Your task to perform on an android device: open app "Firefox Browser" Image 0: 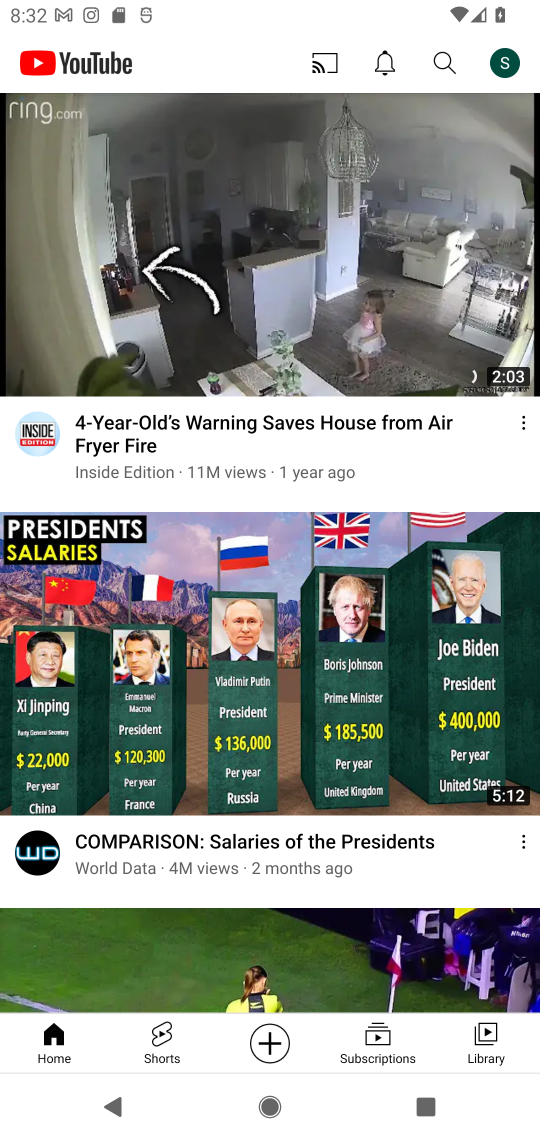
Step 0: press home button
Your task to perform on an android device: open app "Firefox Browser" Image 1: 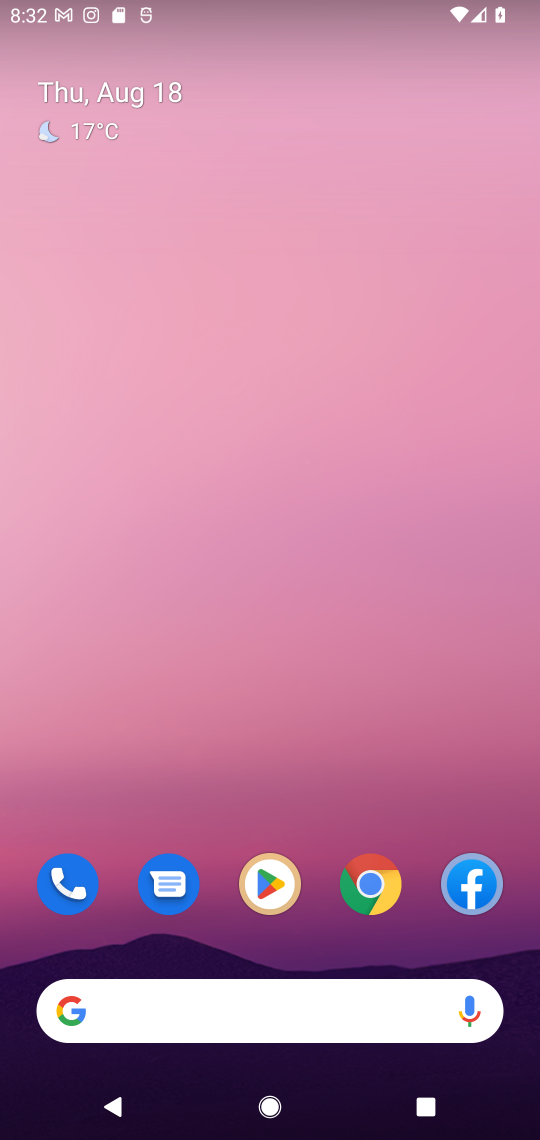
Step 1: drag from (196, 1017) to (218, 228)
Your task to perform on an android device: open app "Firefox Browser" Image 2: 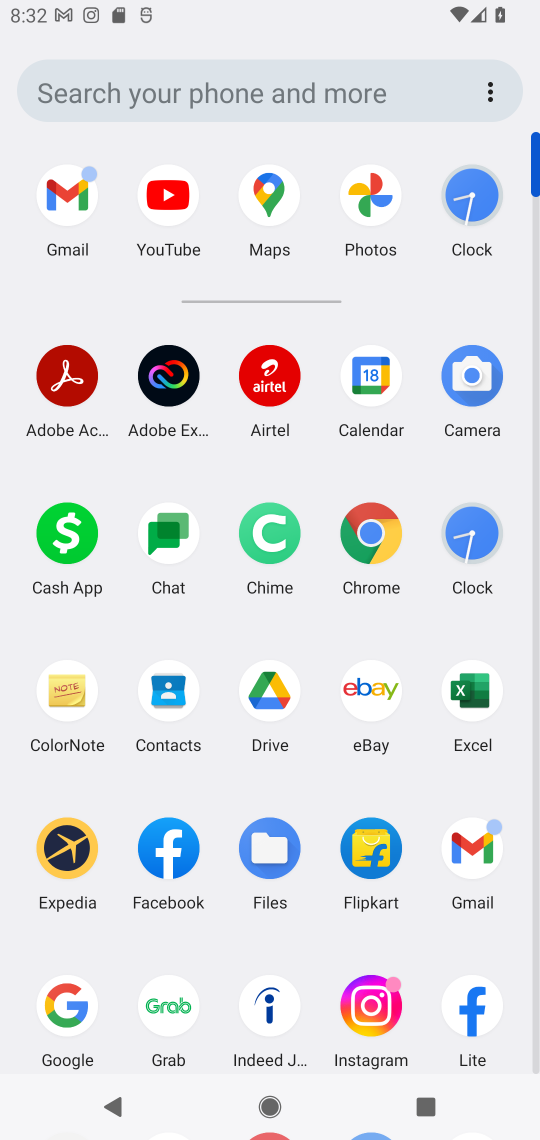
Step 2: drag from (217, 957) to (231, 366)
Your task to perform on an android device: open app "Firefox Browser" Image 3: 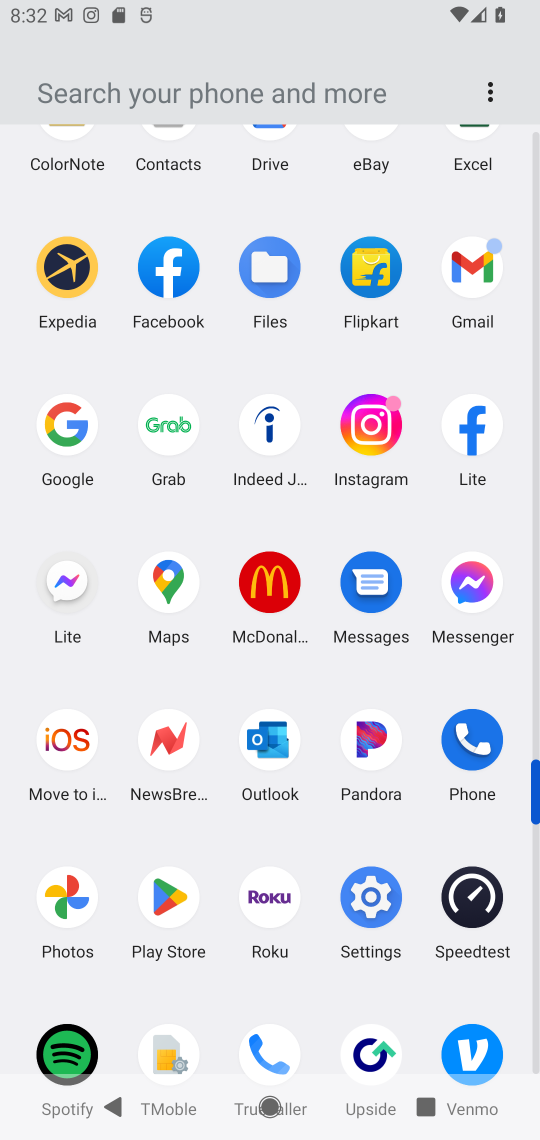
Step 3: click (168, 894)
Your task to perform on an android device: open app "Firefox Browser" Image 4: 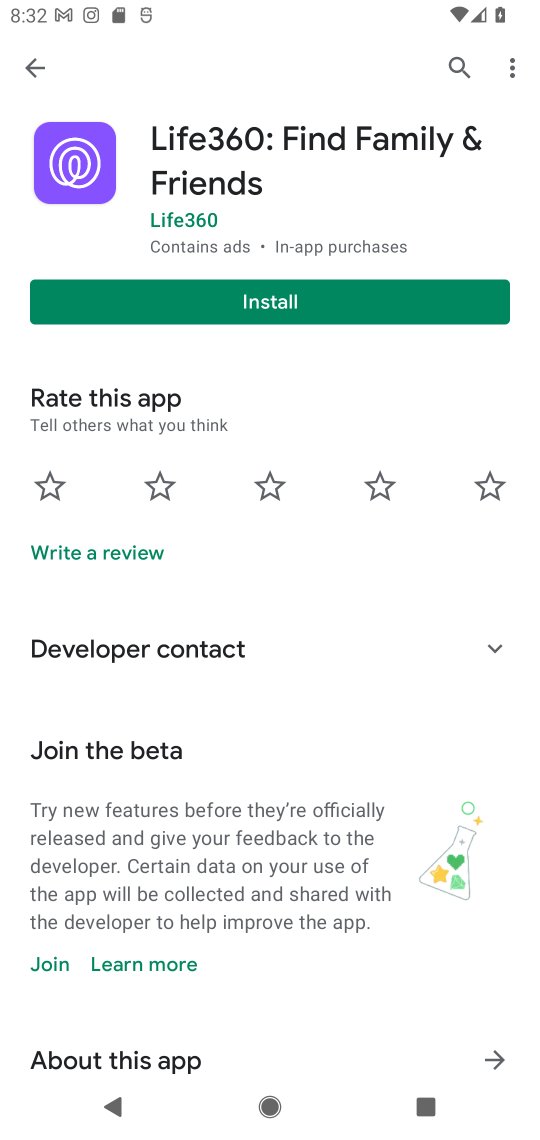
Step 4: press back button
Your task to perform on an android device: open app "Firefox Browser" Image 5: 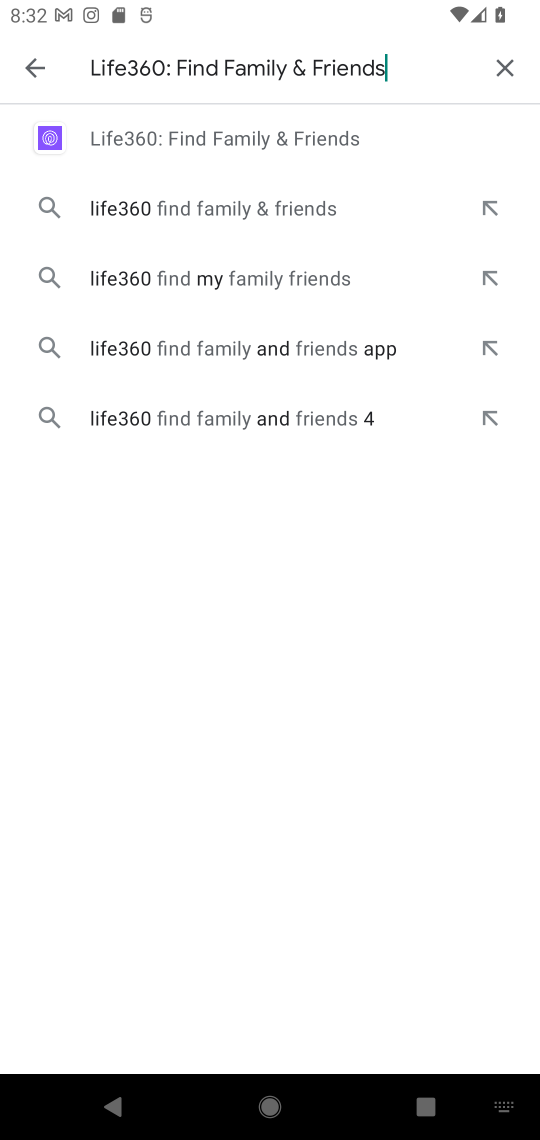
Step 5: press back button
Your task to perform on an android device: open app "Firefox Browser" Image 6: 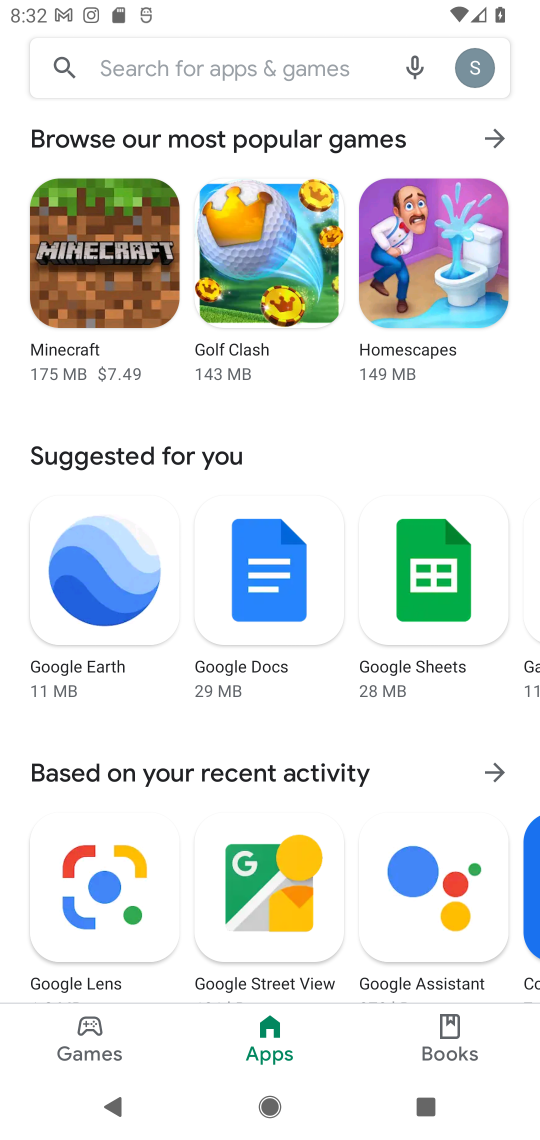
Step 6: click (289, 55)
Your task to perform on an android device: open app "Firefox Browser" Image 7: 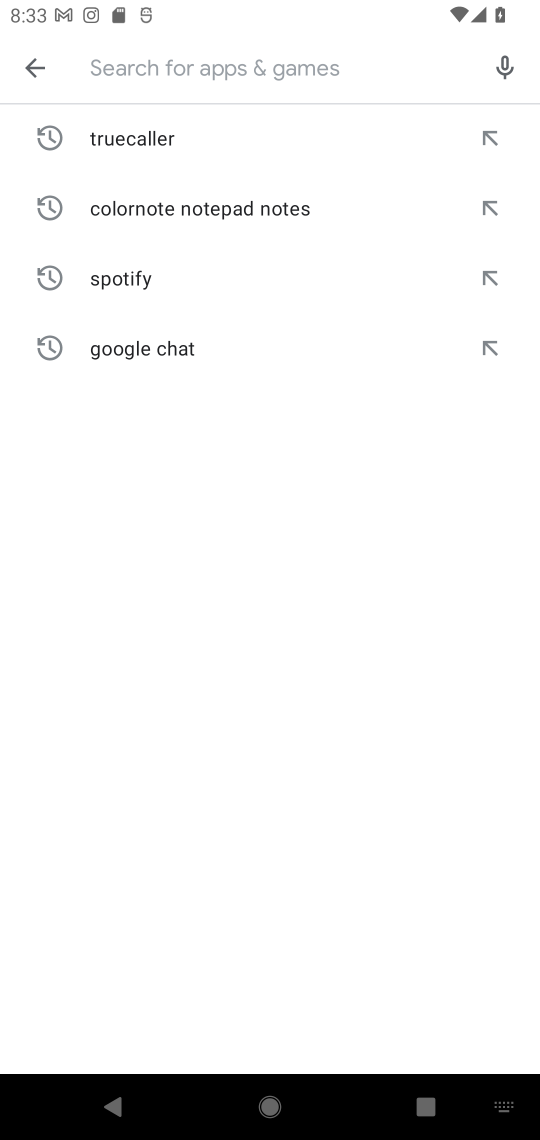
Step 7: type "Firefox Browser"
Your task to perform on an android device: open app "Firefox Browser" Image 8: 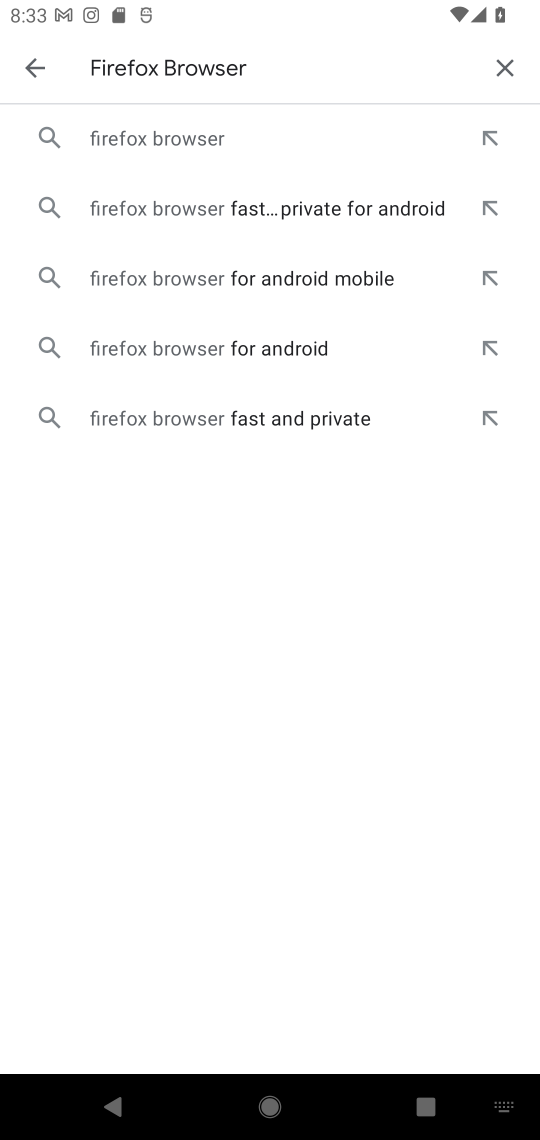
Step 8: click (210, 144)
Your task to perform on an android device: open app "Firefox Browser" Image 9: 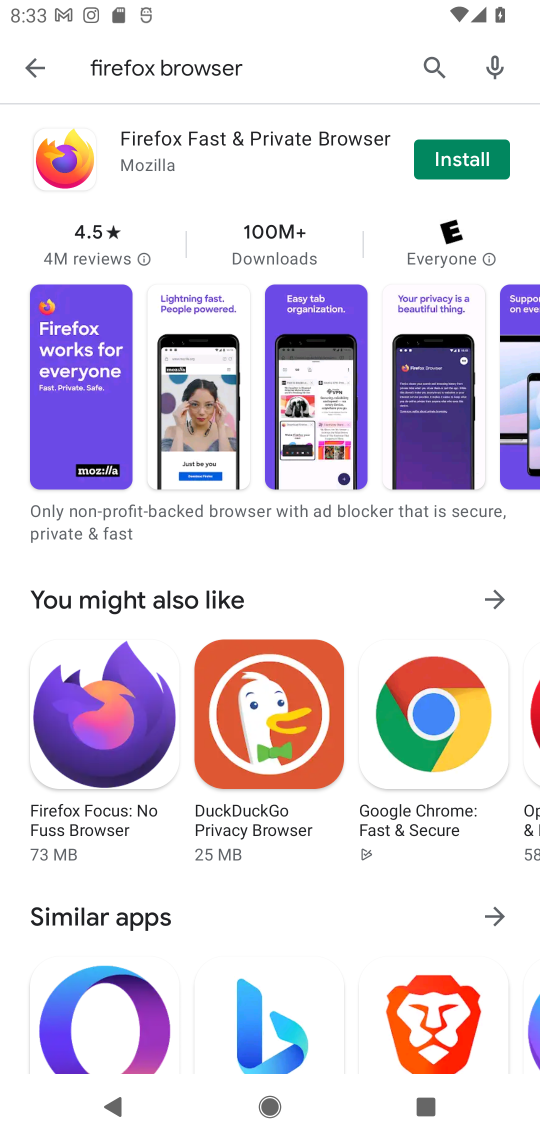
Step 9: task complete